Your task to perform on an android device: turn off notifications in google photos Image 0: 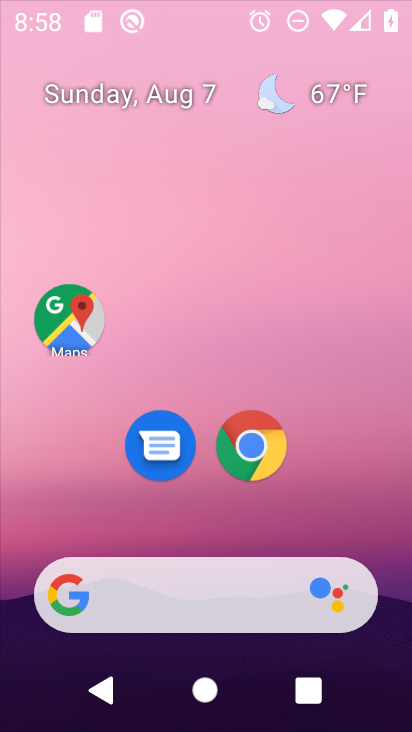
Step 0: press home button
Your task to perform on an android device: turn off notifications in google photos Image 1: 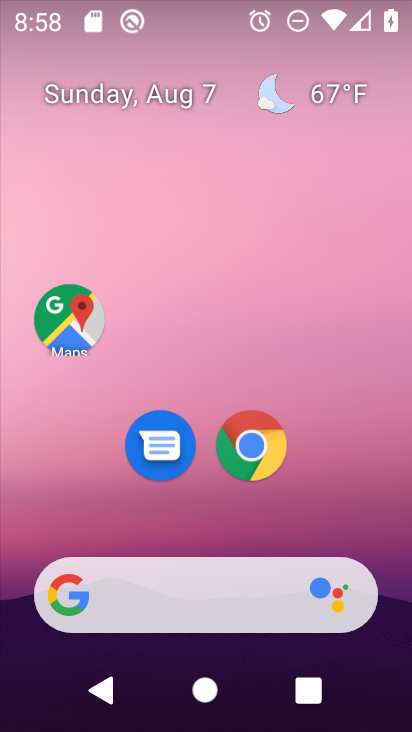
Step 1: drag from (296, 528) to (346, 16)
Your task to perform on an android device: turn off notifications in google photos Image 2: 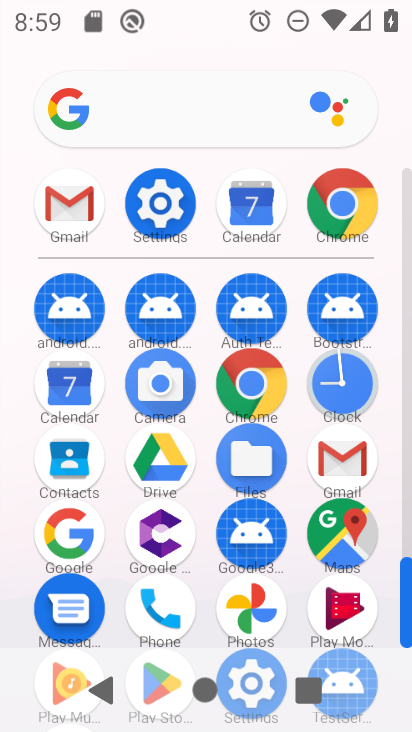
Step 2: click (244, 594)
Your task to perform on an android device: turn off notifications in google photos Image 3: 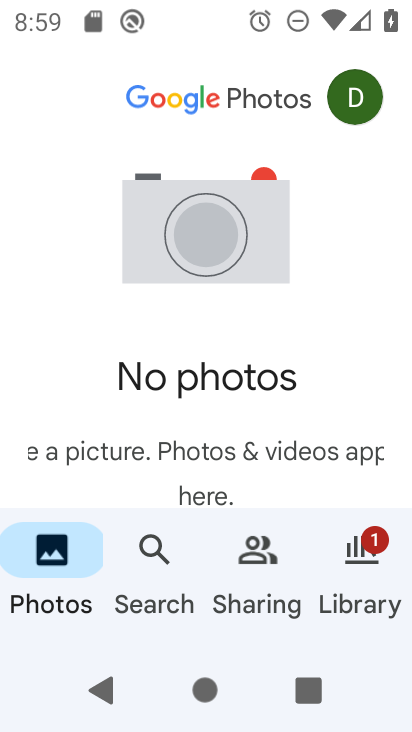
Step 3: click (359, 93)
Your task to perform on an android device: turn off notifications in google photos Image 4: 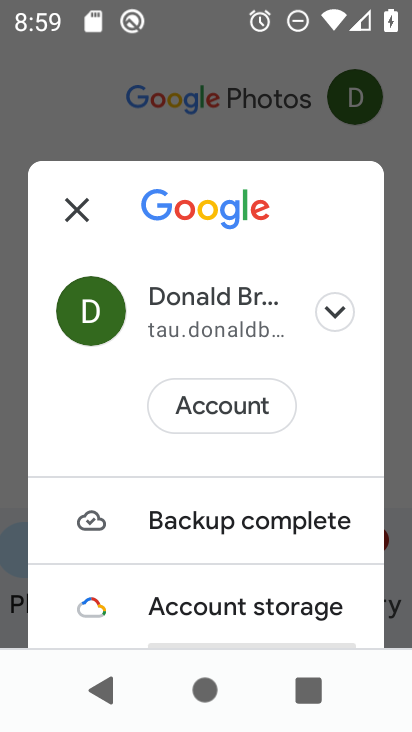
Step 4: drag from (184, 576) to (213, 226)
Your task to perform on an android device: turn off notifications in google photos Image 5: 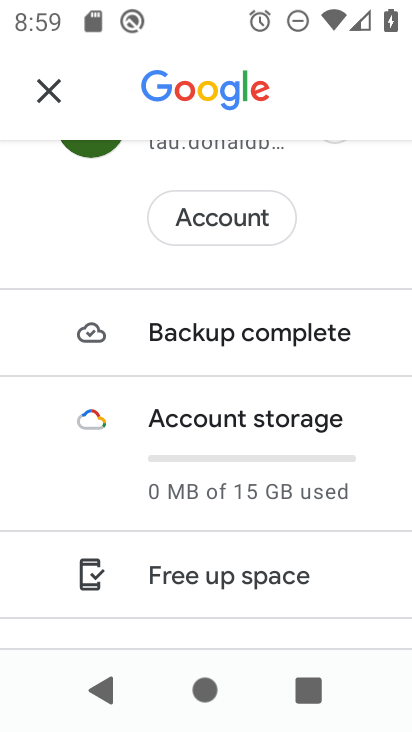
Step 5: drag from (190, 540) to (222, 232)
Your task to perform on an android device: turn off notifications in google photos Image 6: 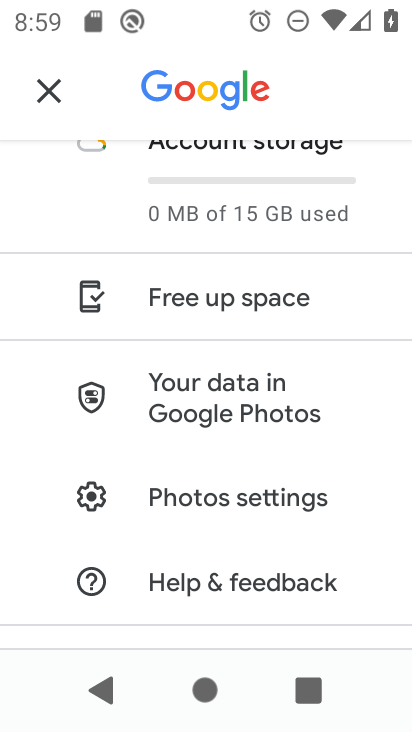
Step 6: click (125, 492)
Your task to perform on an android device: turn off notifications in google photos Image 7: 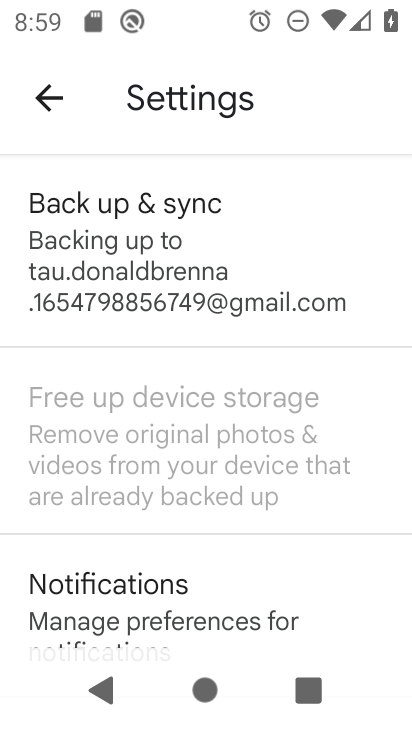
Step 7: drag from (241, 580) to (269, 201)
Your task to perform on an android device: turn off notifications in google photos Image 8: 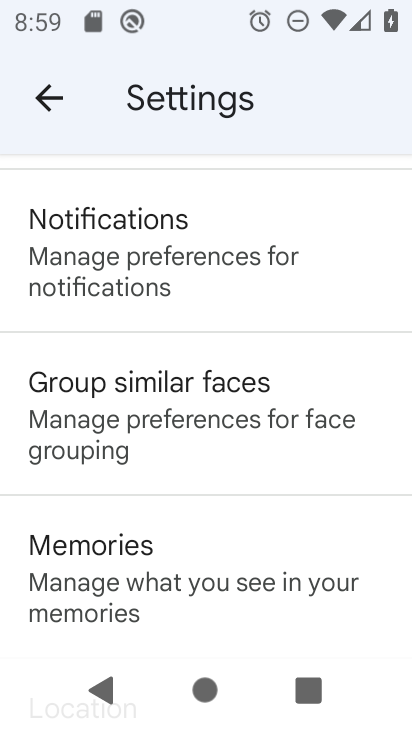
Step 8: drag from (210, 608) to (225, 200)
Your task to perform on an android device: turn off notifications in google photos Image 9: 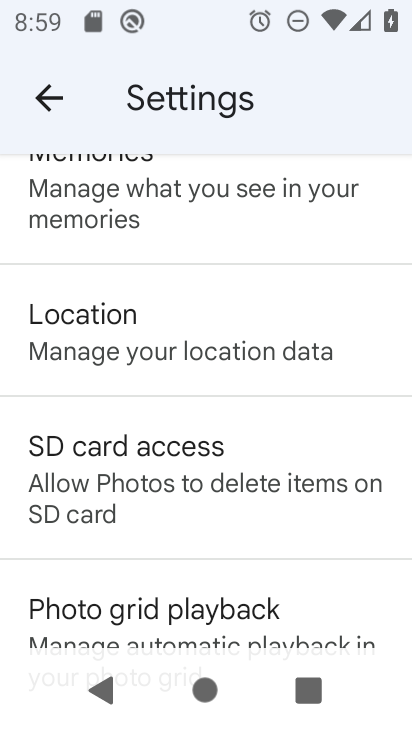
Step 9: drag from (183, 585) to (225, 684)
Your task to perform on an android device: turn off notifications in google photos Image 10: 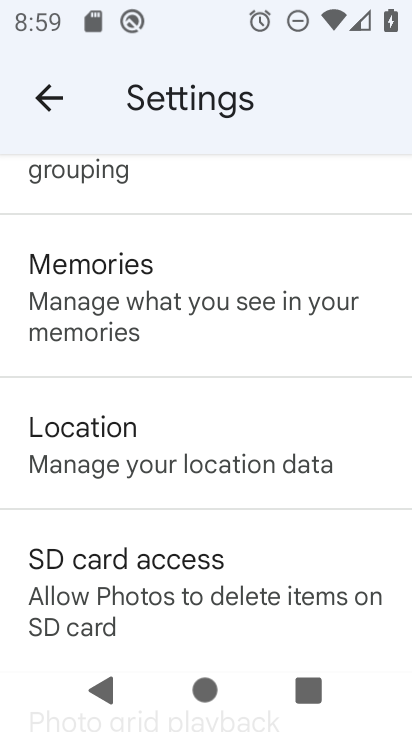
Step 10: drag from (183, 190) to (183, 617)
Your task to perform on an android device: turn off notifications in google photos Image 11: 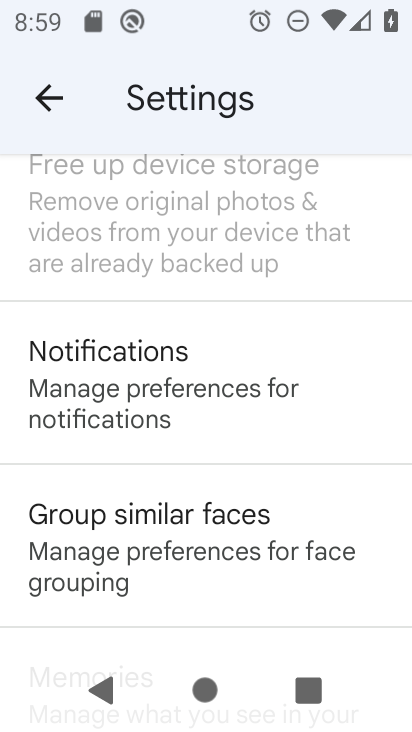
Step 11: click (190, 419)
Your task to perform on an android device: turn off notifications in google photos Image 12: 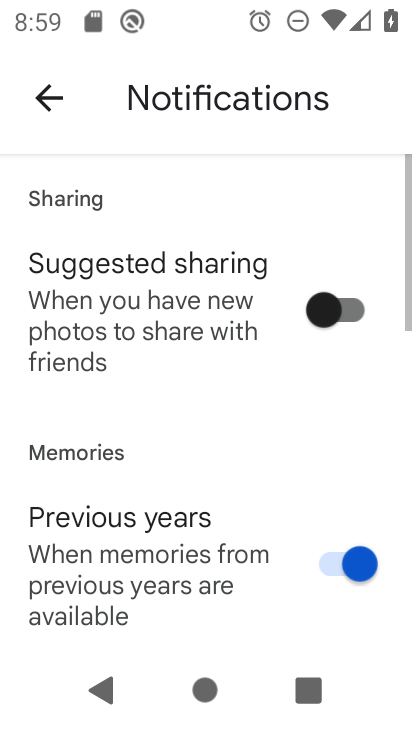
Step 12: drag from (190, 558) to (210, 149)
Your task to perform on an android device: turn off notifications in google photos Image 13: 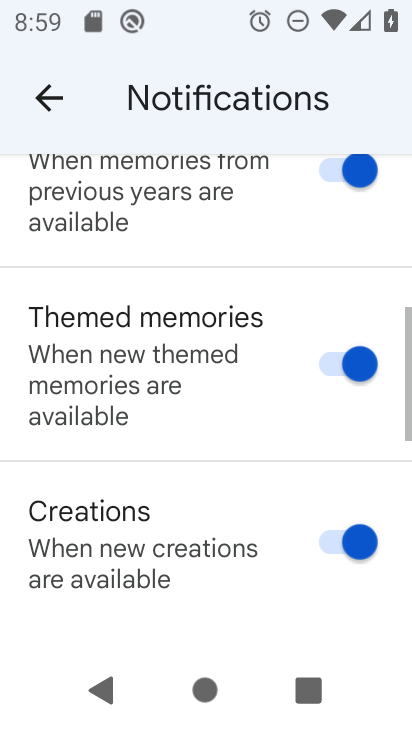
Step 13: drag from (186, 573) to (212, 78)
Your task to perform on an android device: turn off notifications in google photos Image 14: 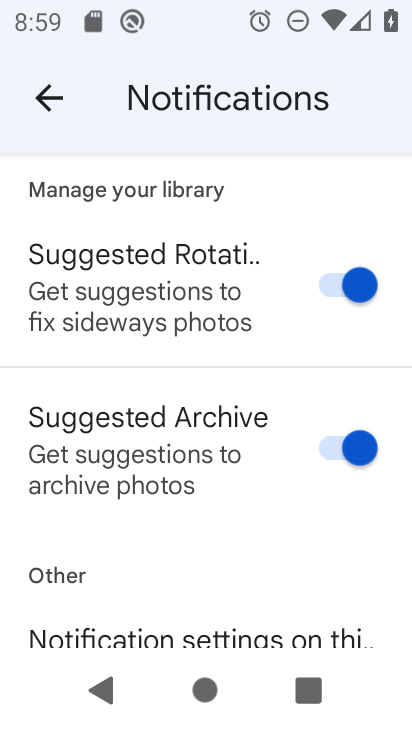
Step 14: drag from (204, 561) to (229, 194)
Your task to perform on an android device: turn off notifications in google photos Image 15: 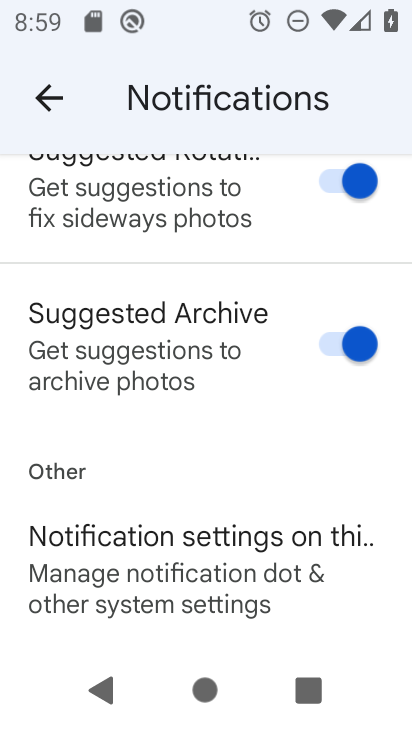
Step 15: click (239, 540)
Your task to perform on an android device: turn off notifications in google photos Image 16: 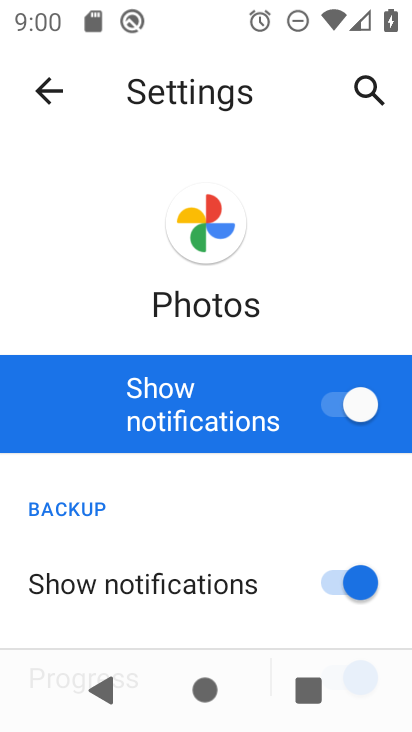
Step 16: click (341, 397)
Your task to perform on an android device: turn off notifications in google photos Image 17: 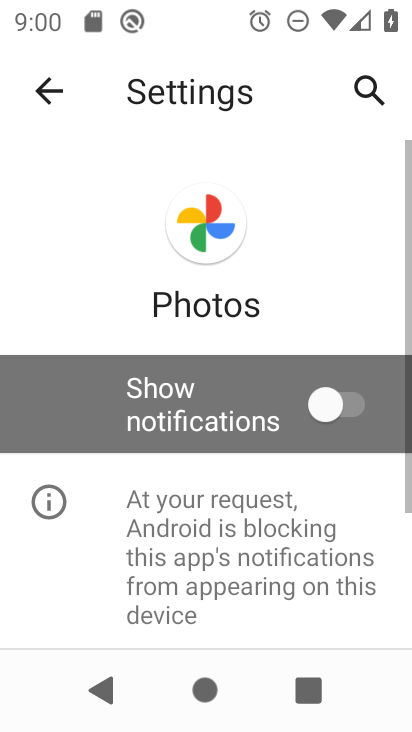
Step 17: task complete